Your task to perform on an android device: allow notifications from all sites in the chrome app Image 0: 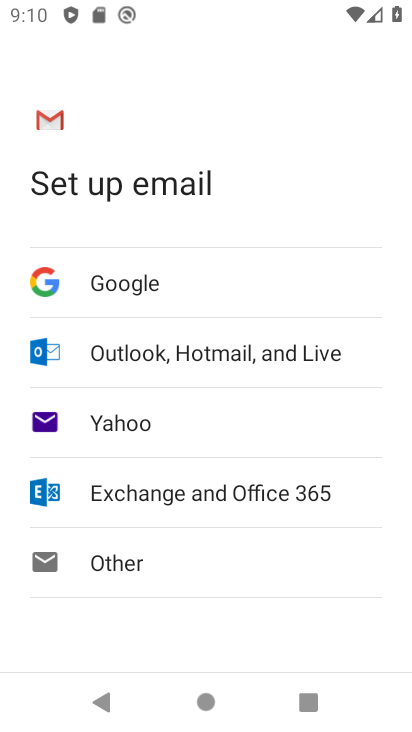
Step 0: press home button
Your task to perform on an android device: allow notifications from all sites in the chrome app Image 1: 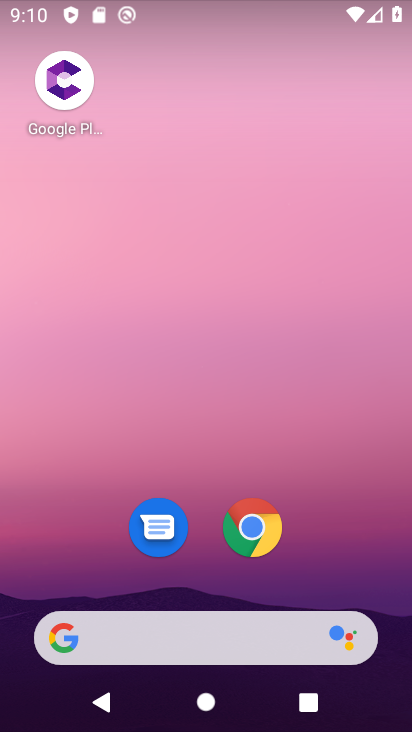
Step 1: click (254, 524)
Your task to perform on an android device: allow notifications from all sites in the chrome app Image 2: 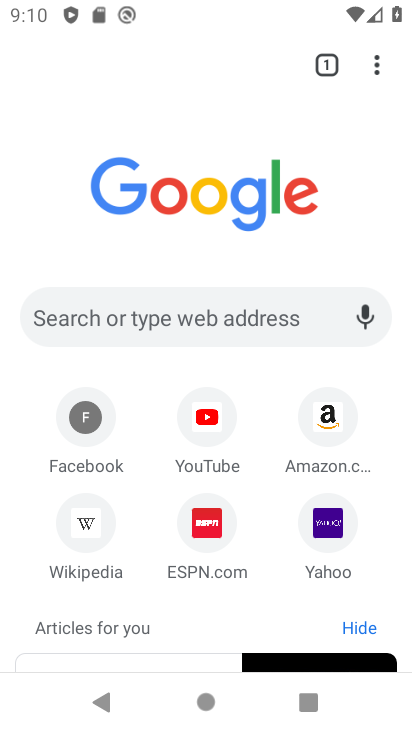
Step 2: click (376, 63)
Your task to perform on an android device: allow notifications from all sites in the chrome app Image 3: 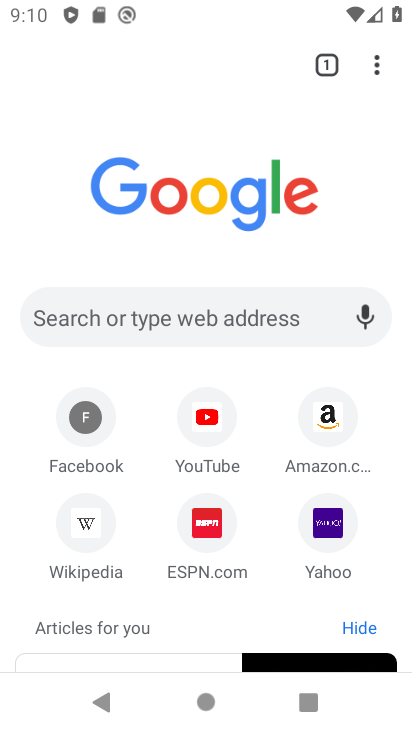
Step 3: click (377, 64)
Your task to perform on an android device: allow notifications from all sites in the chrome app Image 4: 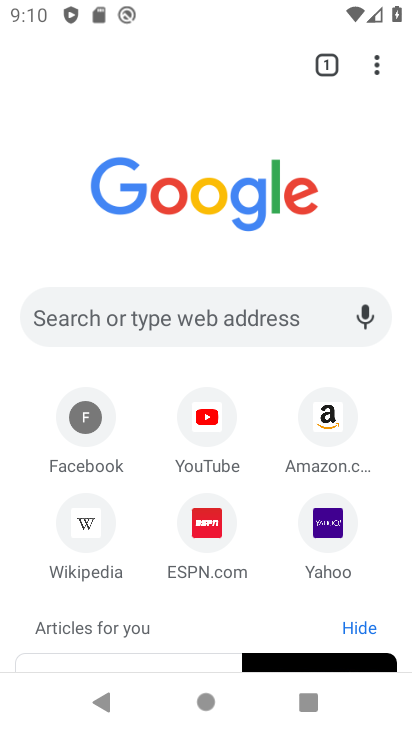
Step 4: click (375, 56)
Your task to perform on an android device: allow notifications from all sites in the chrome app Image 5: 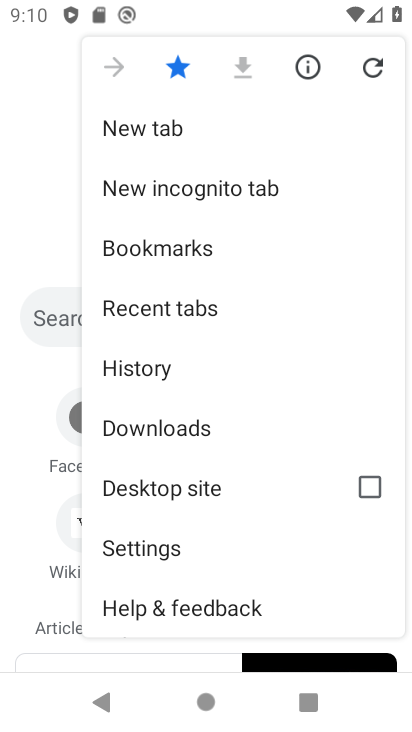
Step 5: drag from (272, 574) to (281, 335)
Your task to perform on an android device: allow notifications from all sites in the chrome app Image 6: 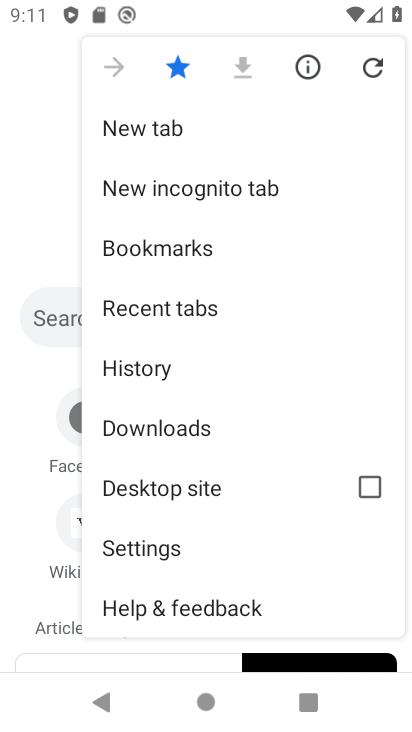
Step 6: click (156, 543)
Your task to perform on an android device: allow notifications from all sites in the chrome app Image 7: 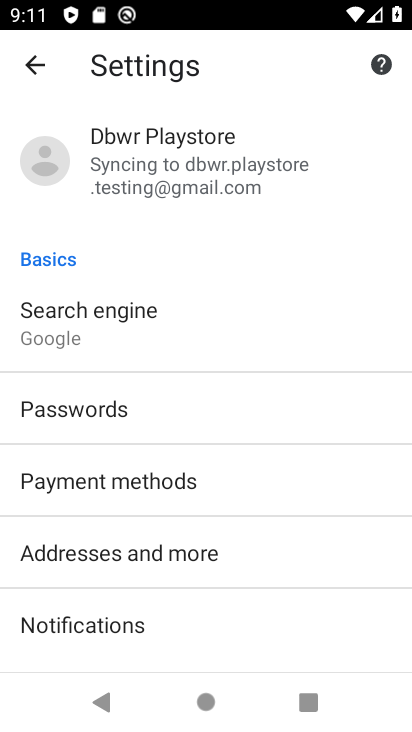
Step 7: click (298, 257)
Your task to perform on an android device: allow notifications from all sites in the chrome app Image 8: 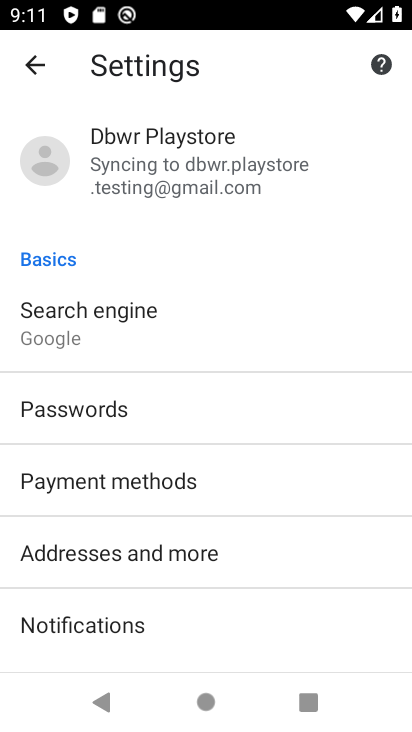
Step 8: drag from (300, 638) to (289, 277)
Your task to perform on an android device: allow notifications from all sites in the chrome app Image 9: 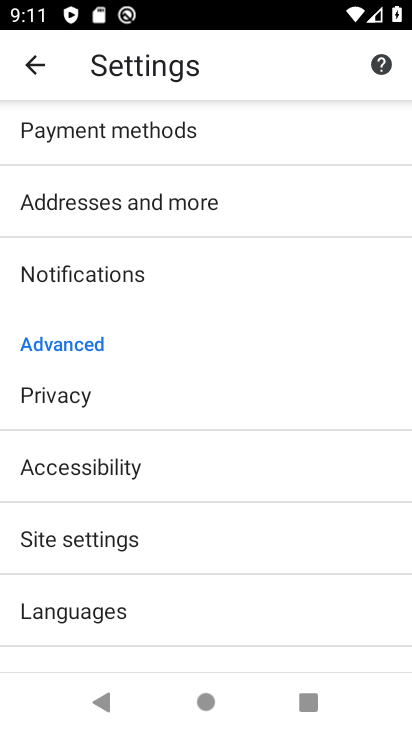
Step 9: click (108, 534)
Your task to perform on an android device: allow notifications from all sites in the chrome app Image 10: 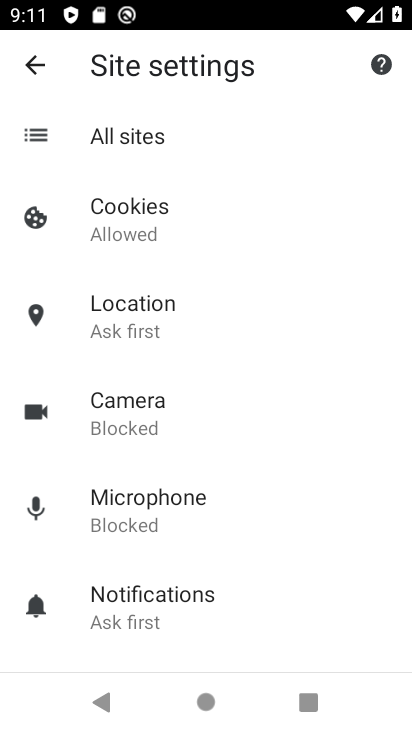
Step 10: click (156, 590)
Your task to perform on an android device: allow notifications from all sites in the chrome app Image 11: 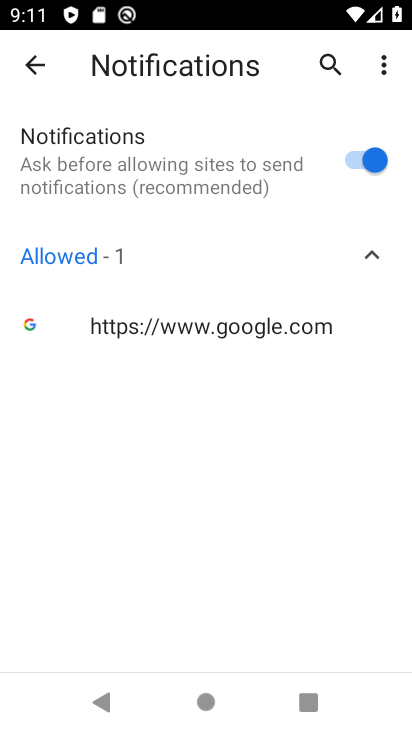
Step 11: task complete